Your task to perform on an android device: What's the weather? Image 0: 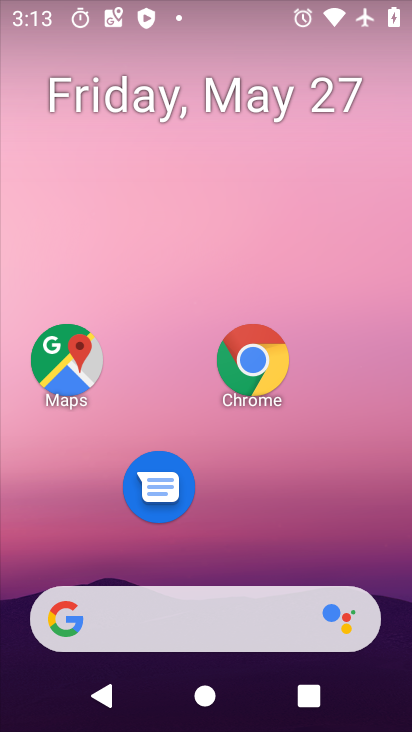
Step 0: drag from (248, 463) to (251, 73)
Your task to perform on an android device: What's the weather? Image 1: 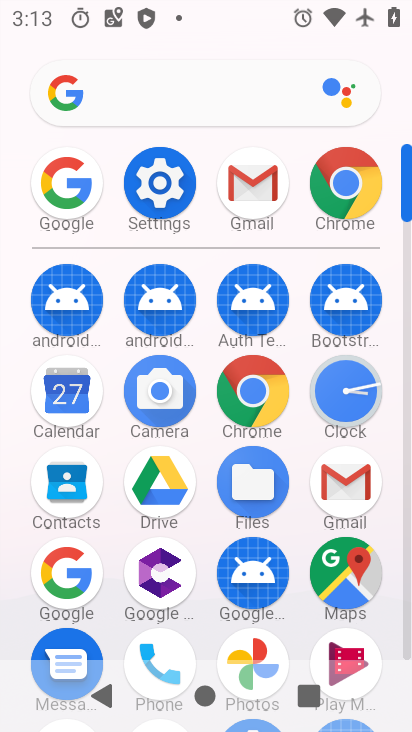
Step 1: click (66, 182)
Your task to perform on an android device: What's the weather? Image 2: 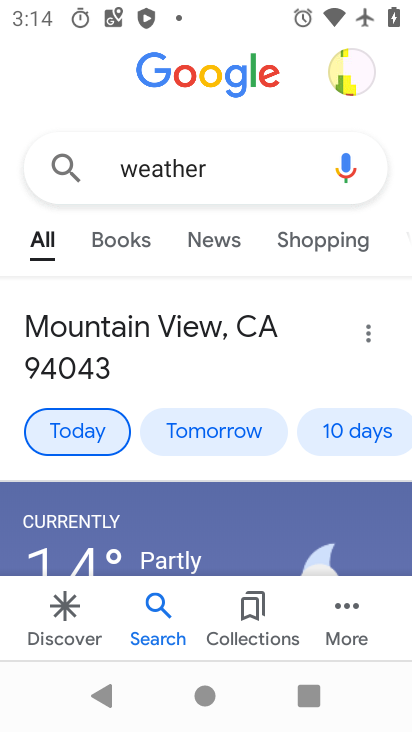
Step 2: task complete